Your task to perform on an android device: open app "Firefox Browser" (install if not already installed) Image 0: 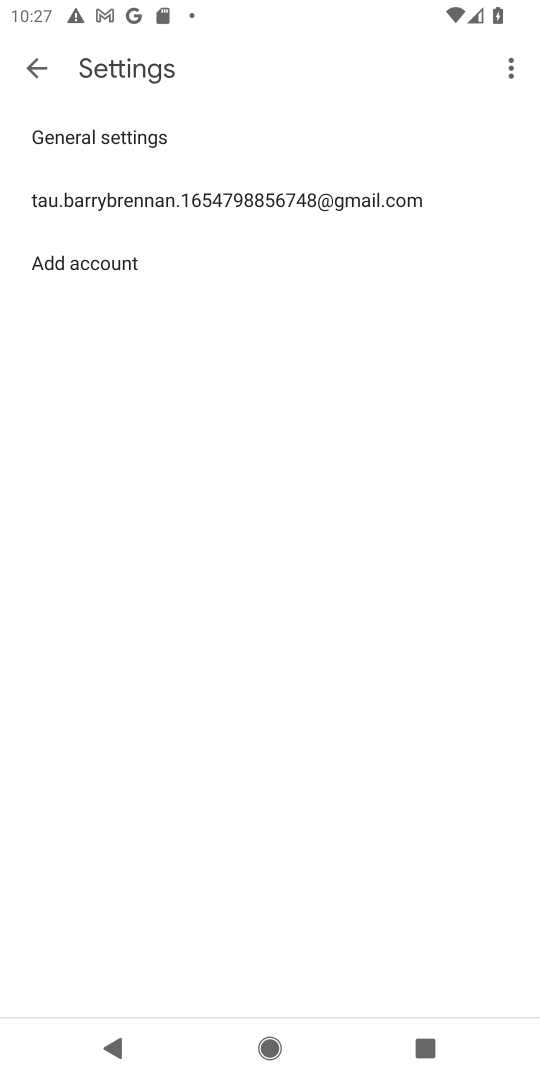
Step 0: press home button
Your task to perform on an android device: open app "Firefox Browser" (install if not already installed) Image 1: 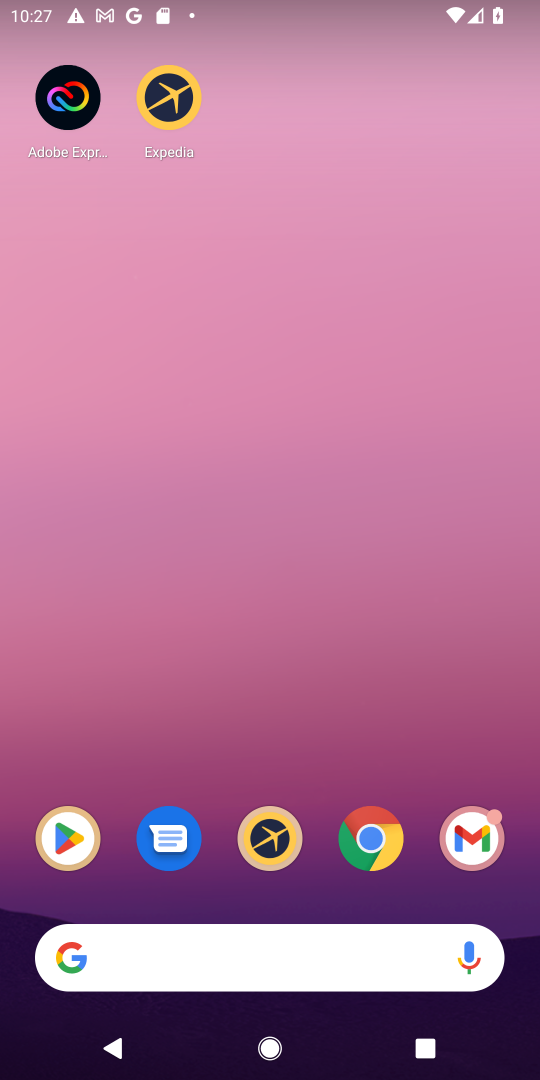
Step 1: drag from (300, 719) to (300, 63)
Your task to perform on an android device: open app "Firefox Browser" (install if not already installed) Image 2: 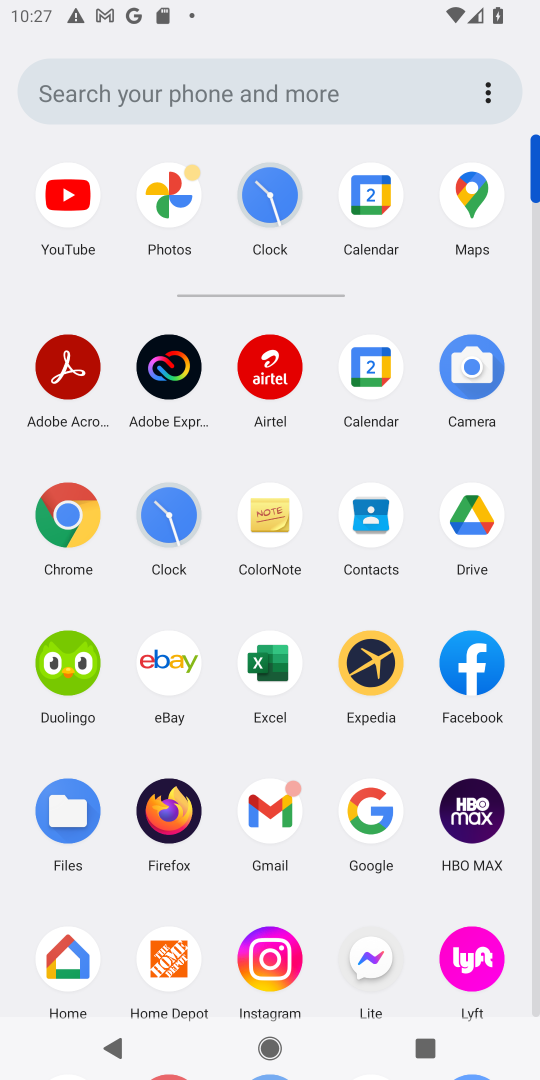
Step 2: drag from (310, 895) to (306, 509)
Your task to perform on an android device: open app "Firefox Browser" (install if not already installed) Image 3: 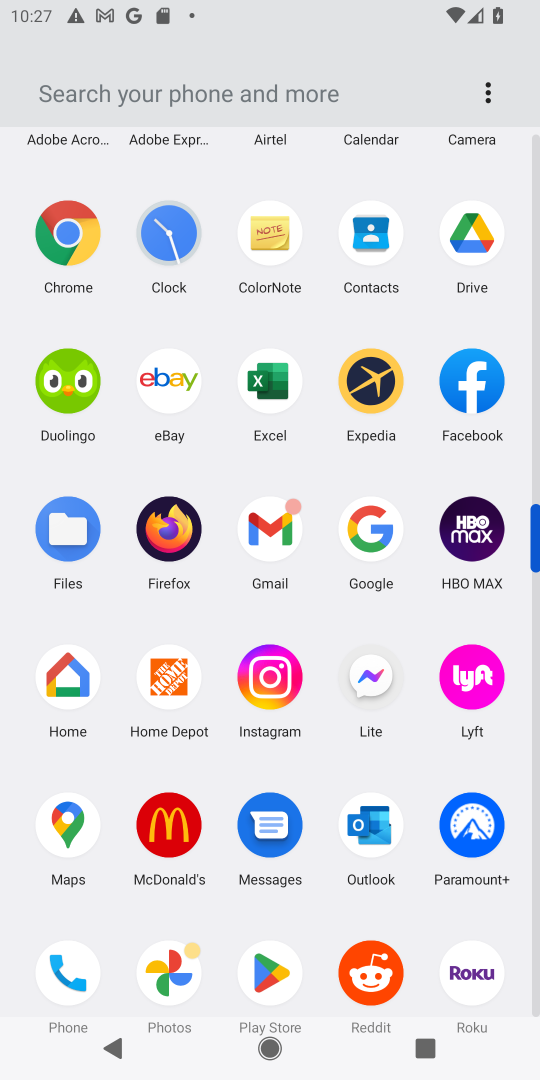
Step 3: drag from (312, 913) to (311, 638)
Your task to perform on an android device: open app "Firefox Browser" (install if not already installed) Image 4: 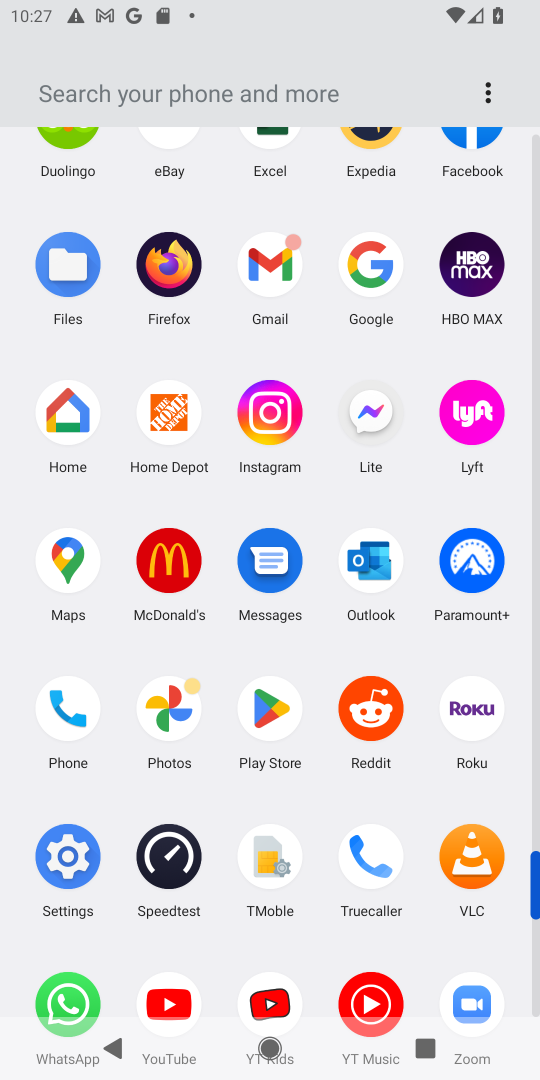
Step 4: click (269, 716)
Your task to perform on an android device: open app "Firefox Browser" (install if not already installed) Image 5: 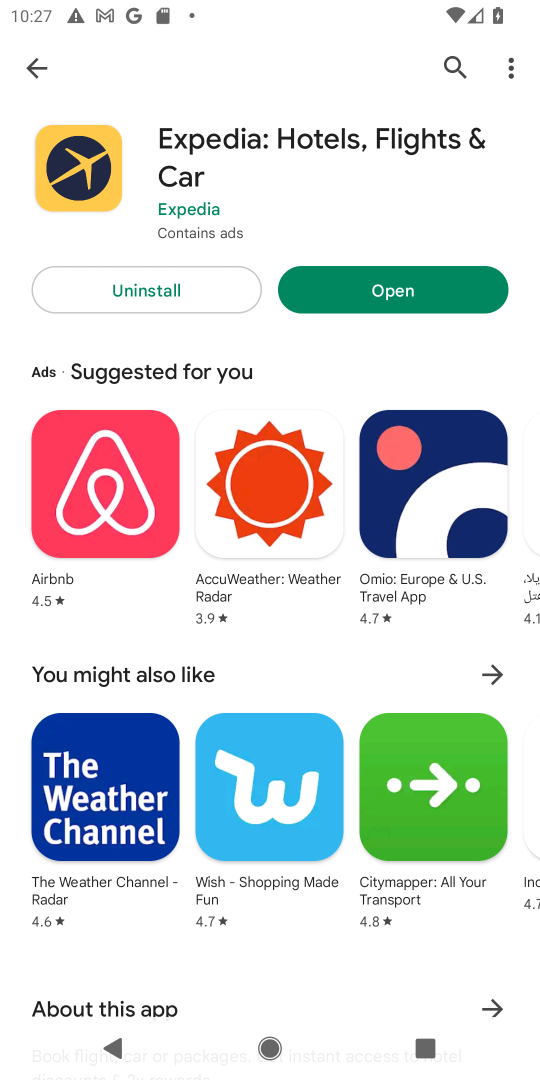
Step 5: click (443, 71)
Your task to perform on an android device: open app "Firefox Browser" (install if not already installed) Image 6: 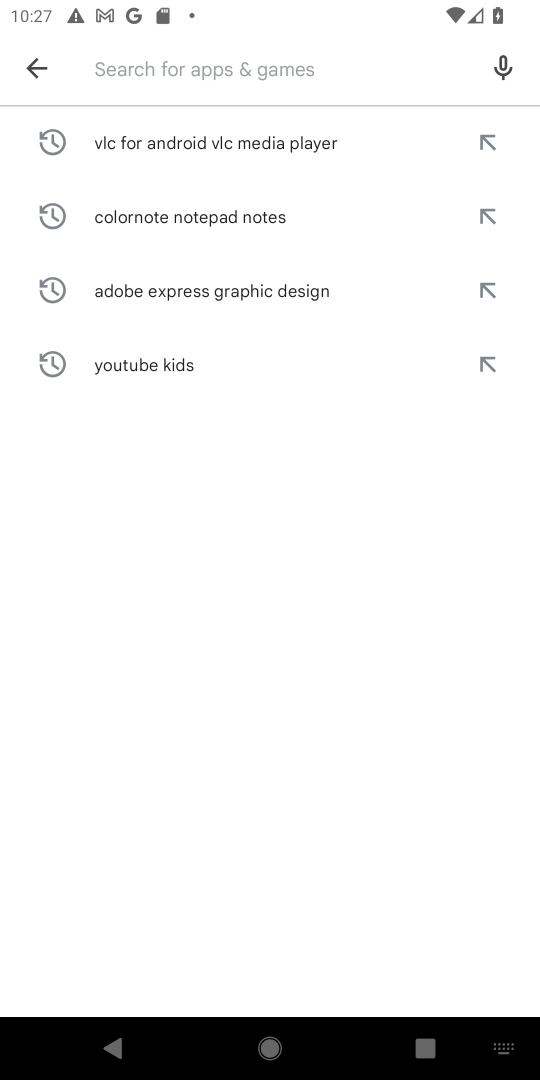
Step 6: click (357, 69)
Your task to perform on an android device: open app "Firefox Browser" (install if not already installed) Image 7: 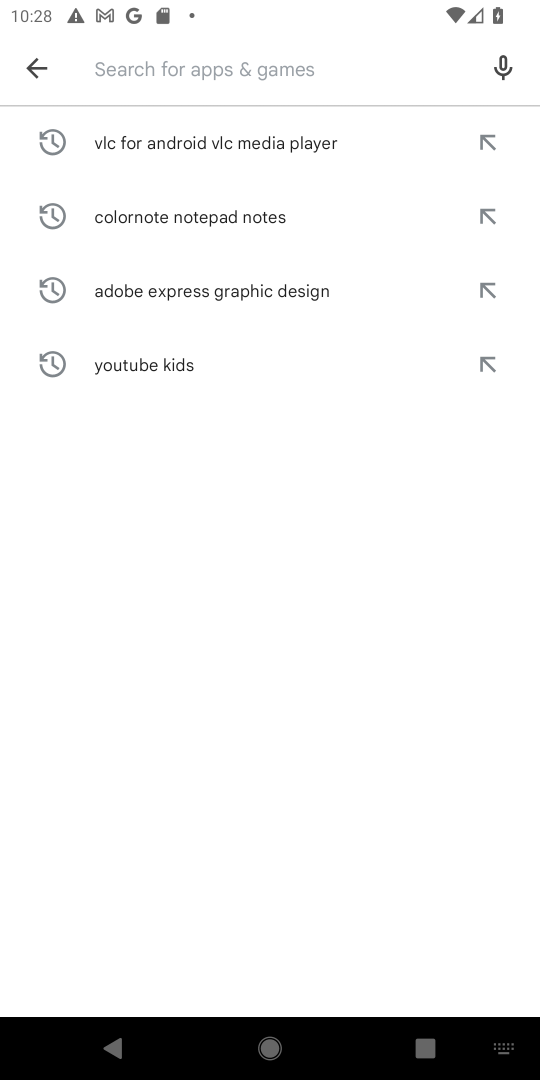
Step 7: type "firefox browser "
Your task to perform on an android device: open app "Firefox Browser" (install if not already installed) Image 8: 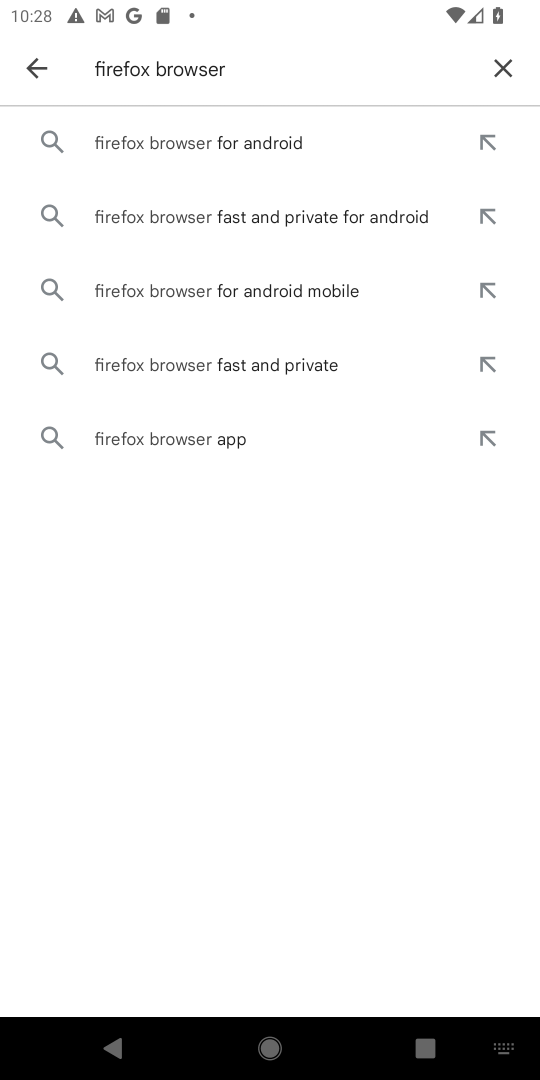
Step 8: click (319, 137)
Your task to perform on an android device: open app "Firefox Browser" (install if not already installed) Image 9: 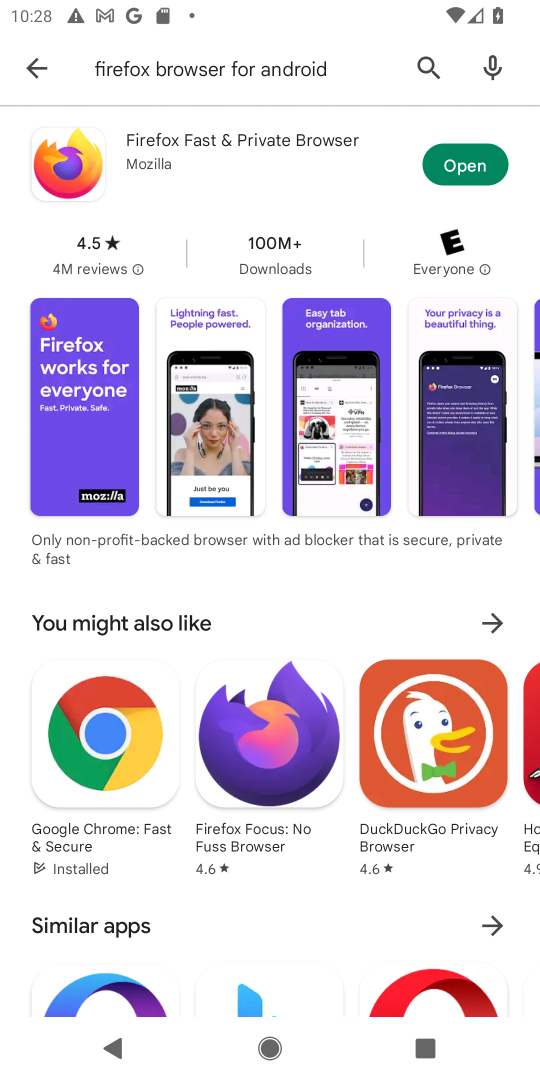
Step 9: click (489, 165)
Your task to perform on an android device: open app "Firefox Browser" (install if not already installed) Image 10: 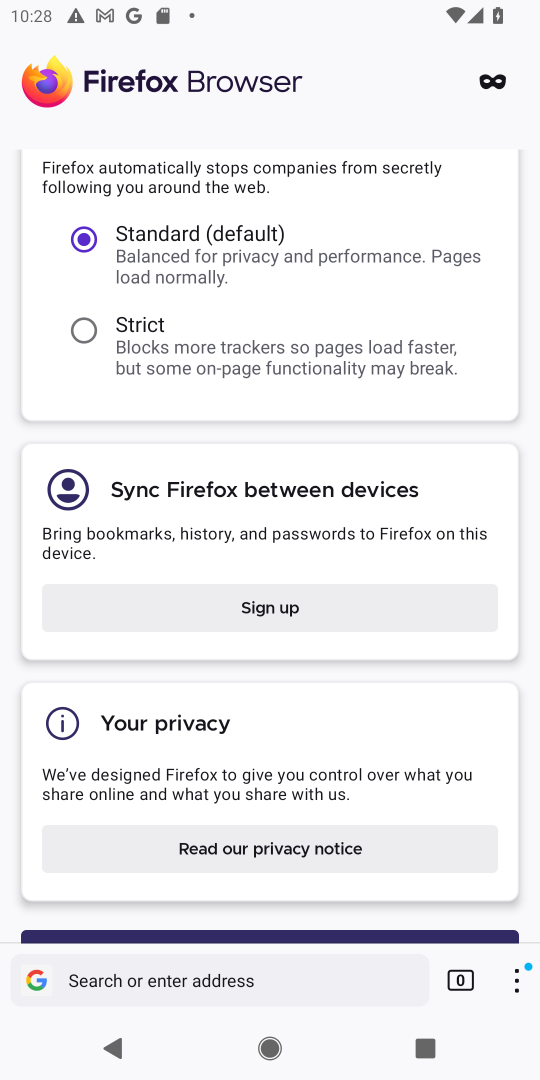
Step 10: task complete